Your task to perform on an android device: make emails show in primary in the gmail app Image 0: 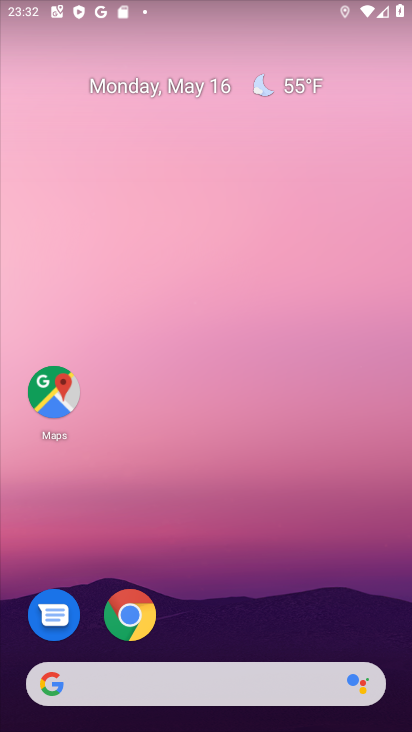
Step 0: drag from (251, 667) to (156, 87)
Your task to perform on an android device: make emails show in primary in the gmail app Image 1: 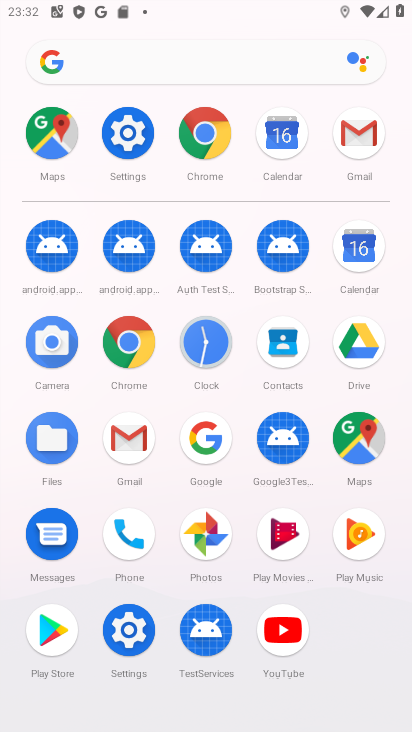
Step 1: click (140, 432)
Your task to perform on an android device: make emails show in primary in the gmail app Image 2: 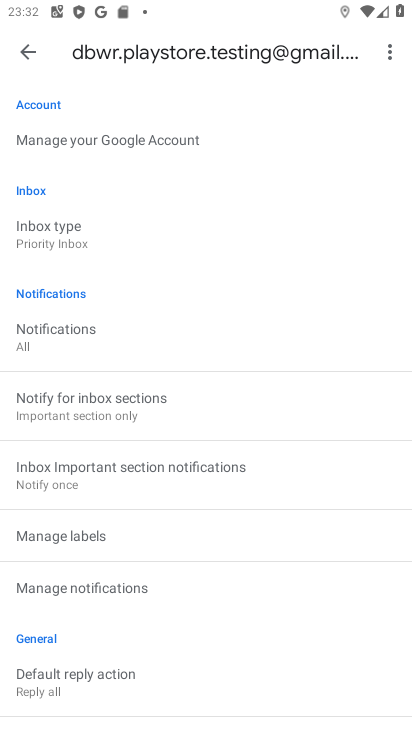
Step 2: click (59, 263)
Your task to perform on an android device: make emails show in primary in the gmail app Image 3: 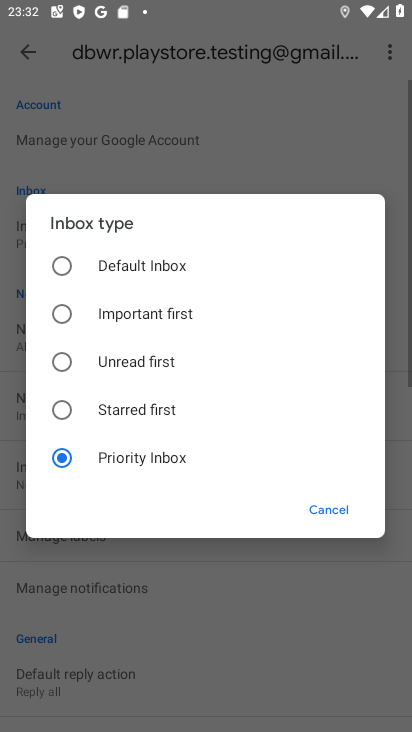
Step 3: click (93, 271)
Your task to perform on an android device: make emails show in primary in the gmail app Image 4: 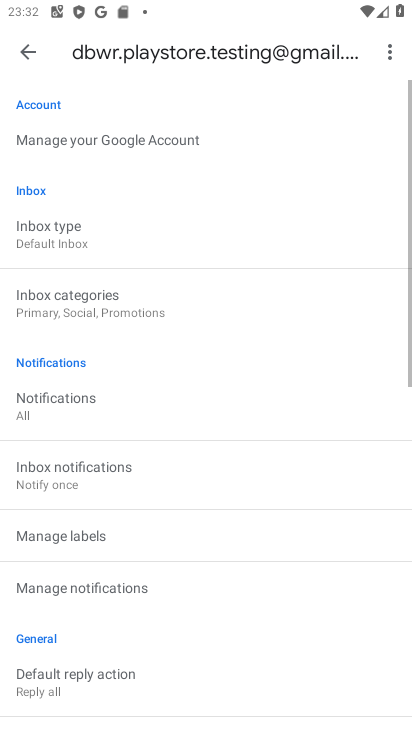
Step 4: click (24, 48)
Your task to perform on an android device: make emails show in primary in the gmail app Image 5: 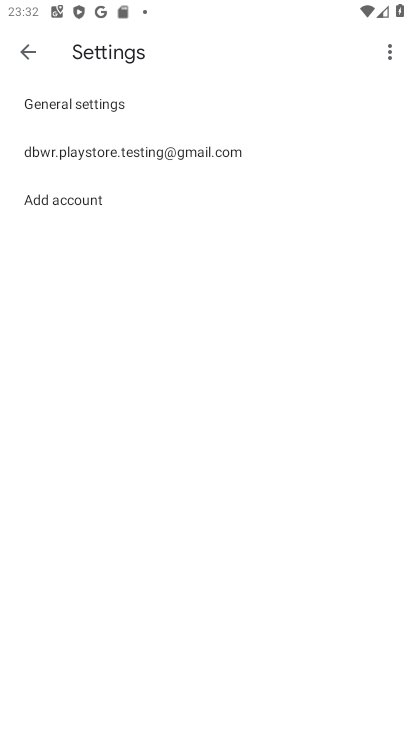
Step 5: click (24, 48)
Your task to perform on an android device: make emails show in primary in the gmail app Image 6: 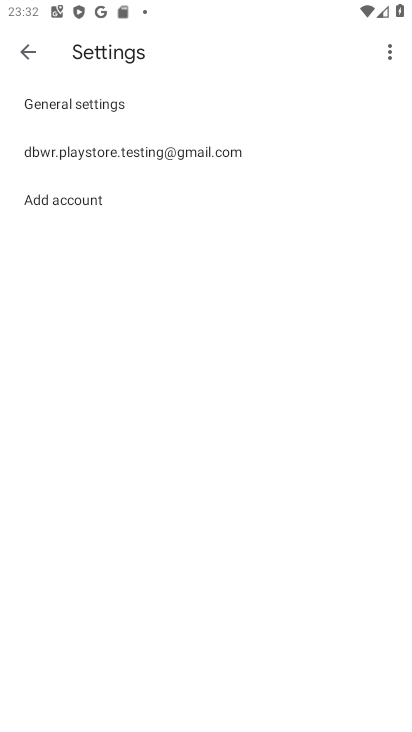
Step 6: click (24, 48)
Your task to perform on an android device: make emails show in primary in the gmail app Image 7: 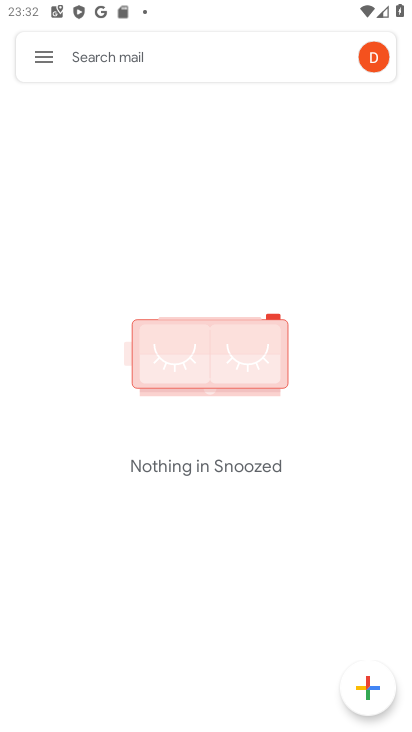
Step 7: click (24, 48)
Your task to perform on an android device: make emails show in primary in the gmail app Image 8: 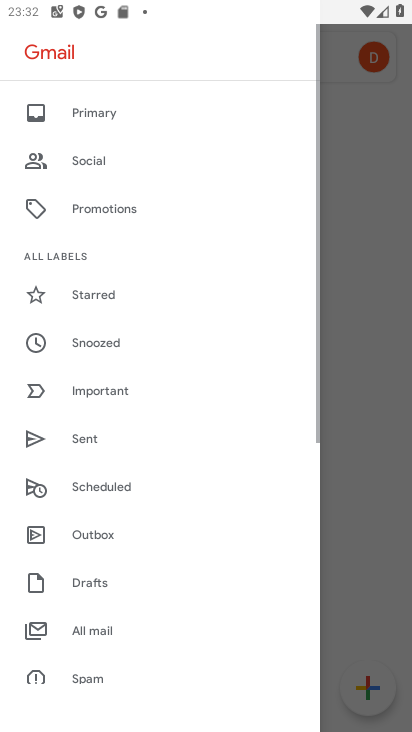
Step 8: click (94, 121)
Your task to perform on an android device: make emails show in primary in the gmail app Image 9: 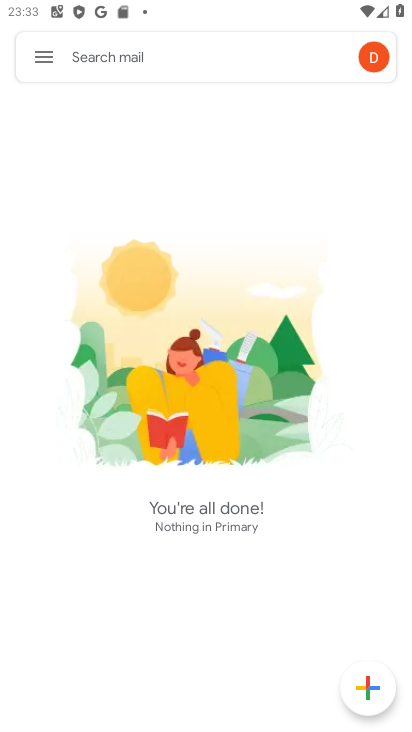
Step 9: task complete